Your task to perform on an android device: Open internet settings Image 0: 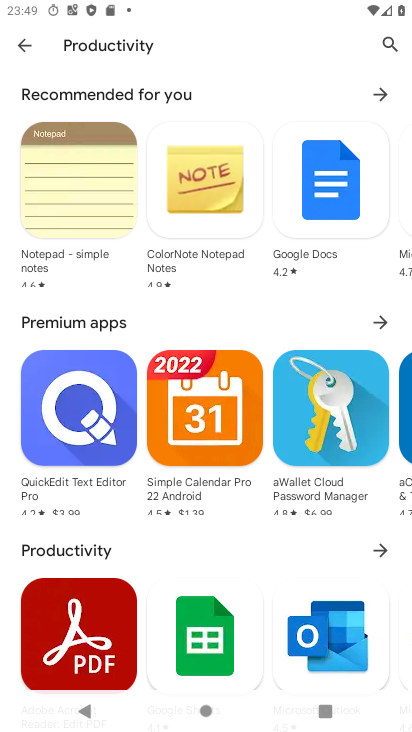
Step 0: press home button
Your task to perform on an android device: Open internet settings Image 1: 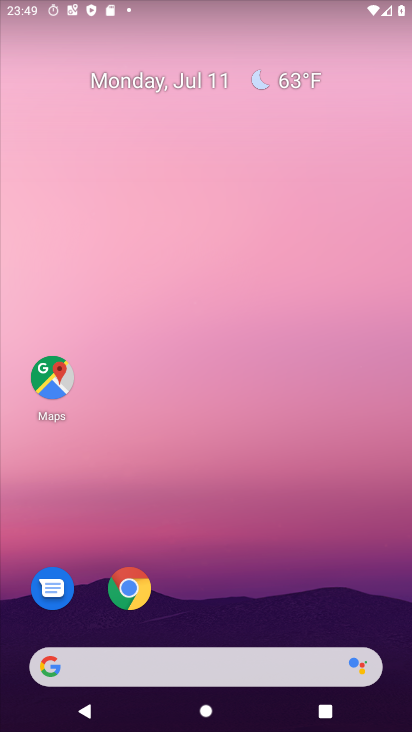
Step 1: drag from (233, 724) to (179, 209)
Your task to perform on an android device: Open internet settings Image 2: 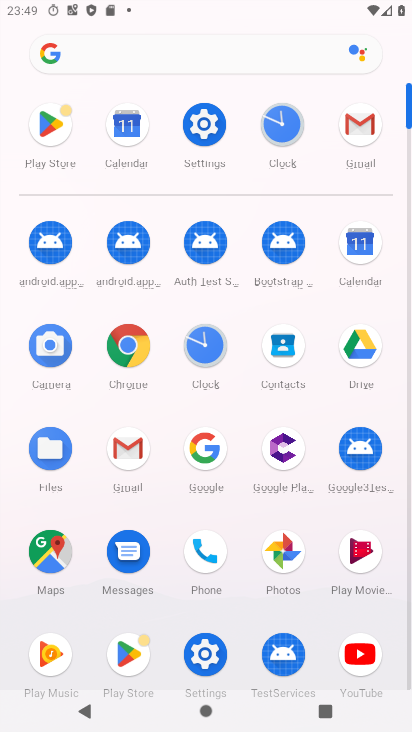
Step 2: click (198, 127)
Your task to perform on an android device: Open internet settings Image 3: 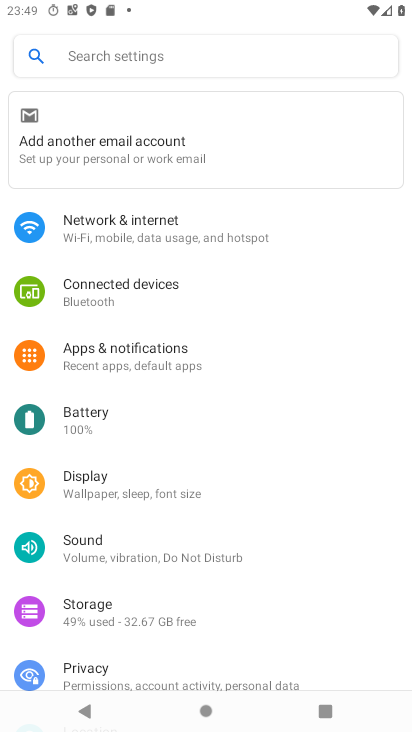
Step 3: click (138, 234)
Your task to perform on an android device: Open internet settings Image 4: 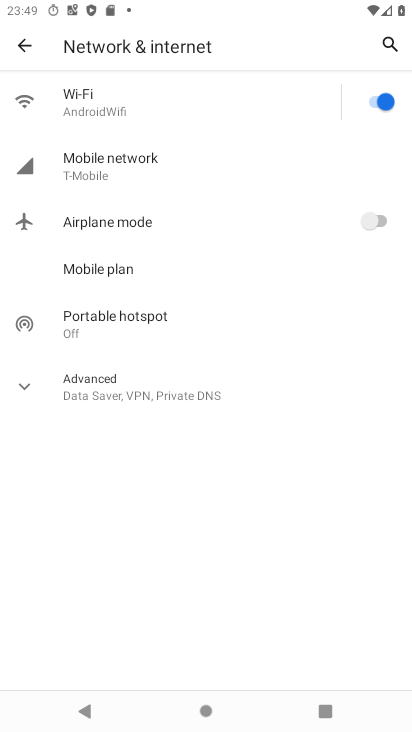
Step 4: task complete